Your task to perform on an android device: Turn on the flashlight Image 0: 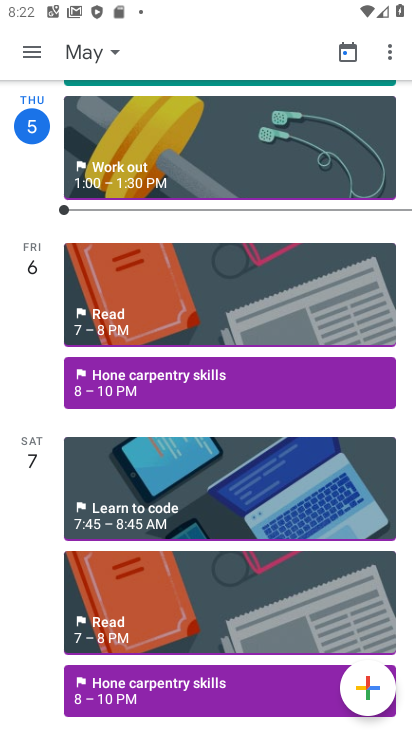
Step 0: press home button
Your task to perform on an android device: Turn on the flashlight Image 1: 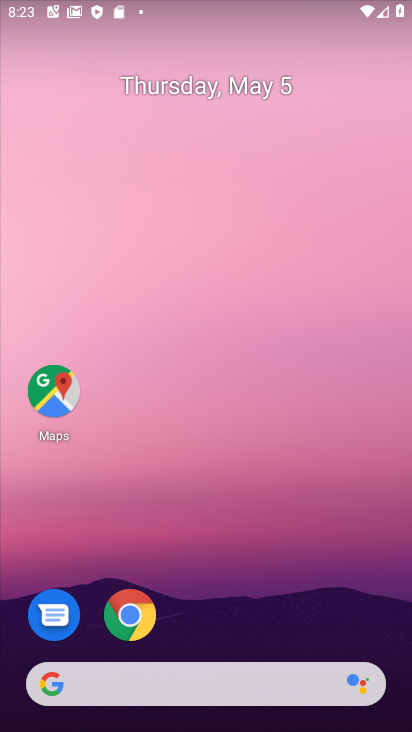
Step 1: drag from (245, 643) to (307, 294)
Your task to perform on an android device: Turn on the flashlight Image 2: 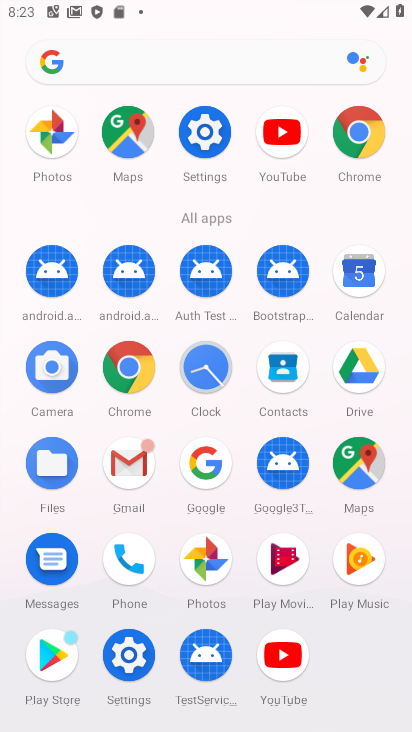
Step 2: click (200, 126)
Your task to perform on an android device: Turn on the flashlight Image 3: 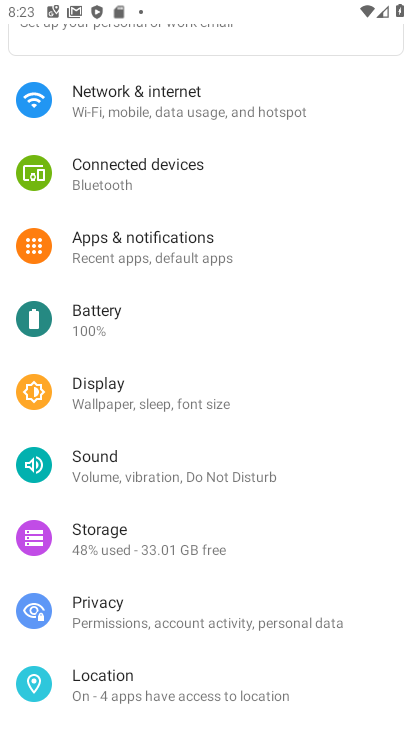
Step 3: drag from (237, 131) to (237, 301)
Your task to perform on an android device: Turn on the flashlight Image 4: 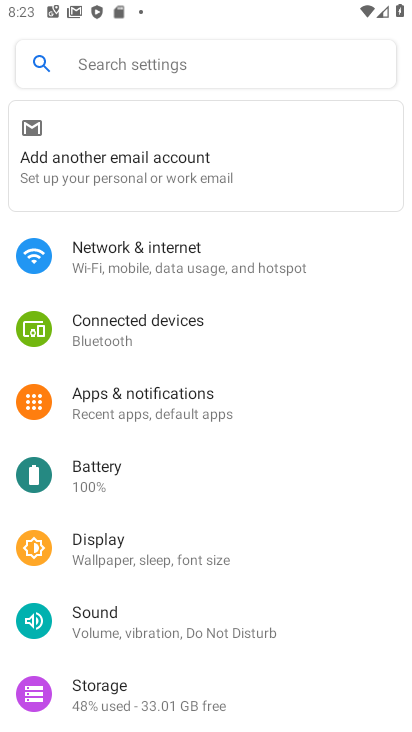
Step 4: click (201, 57)
Your task to perform on an android device: Turn on the flashlight Image 5: 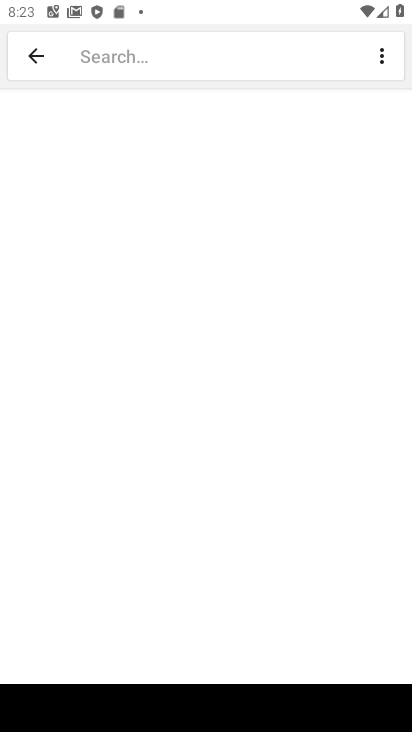
Step 5: type "flashlight"
Your task to perform on an android device: Turn on the flashlight Image 6: 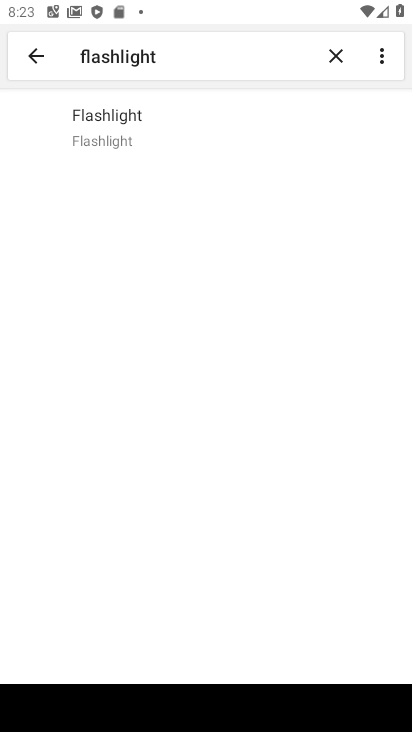
Step 6: click (120, 137)
Your task to perform on an android device: Turn on the flashlight Image 7: 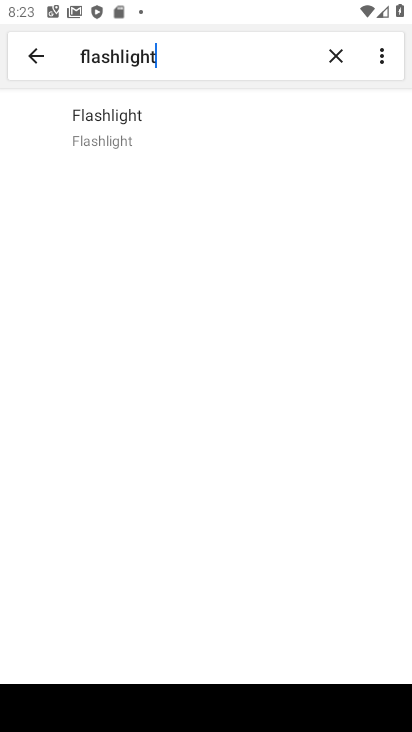
Step 7: click (120, 142)
Your task to perform on an android device: Turn on the flashlight Image 8: 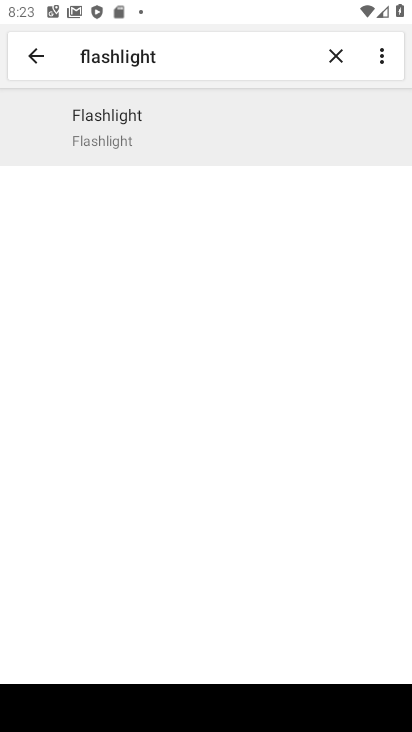
Step 8: click (120, 146)
Your task to perform on an android device: Turn on the flashlight Image 9: 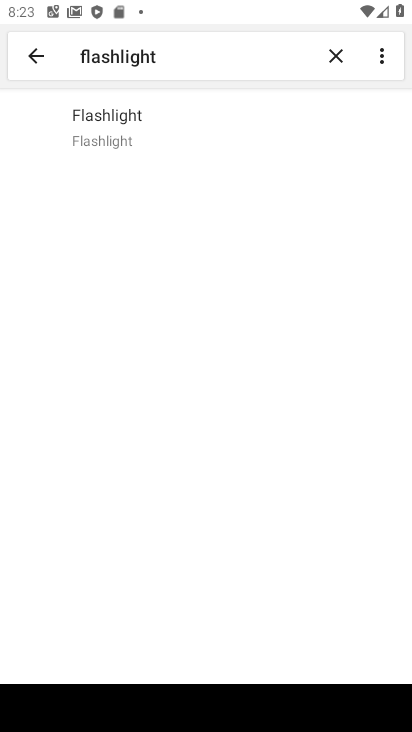
Step 9: task complete